Your task to perform on an android device: move an email to a new category in the gmail app Image 0: 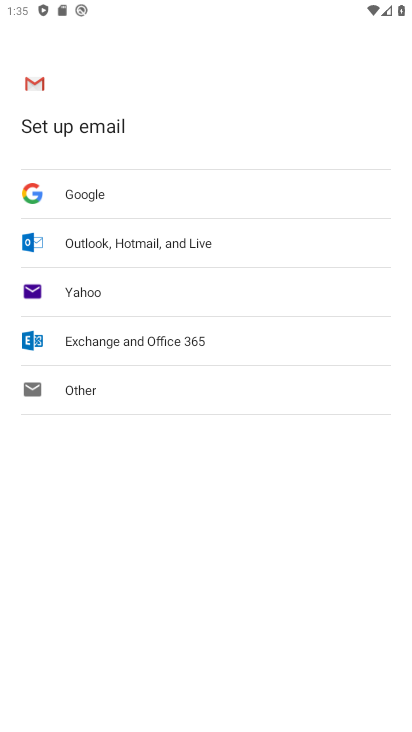
Step 0: press home button
Your task to perform on an android device: move an email to a new category in the gmail app Image 1: 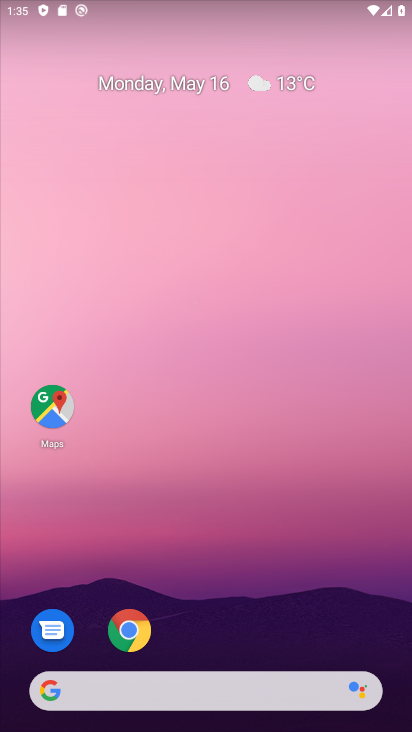
Step 1: drag from (291, 481) to (222, 1)
Your task to perform on an android device: move an email to a new category in the gmail app Image 2: 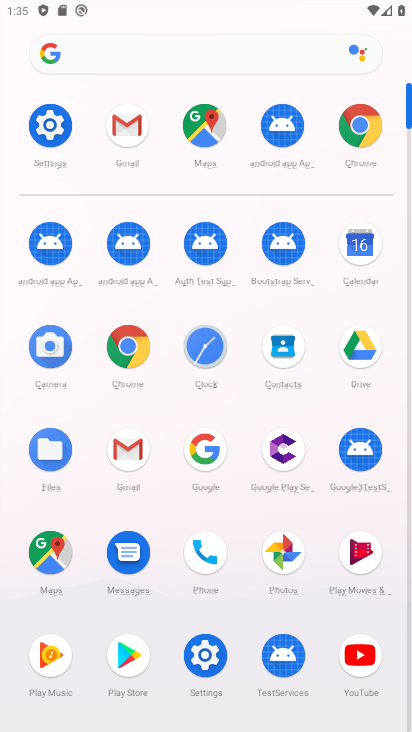
Step 2: click (142, 131)
Your task to perform on an android device: move an email to a new category in the gmail app Image 3: 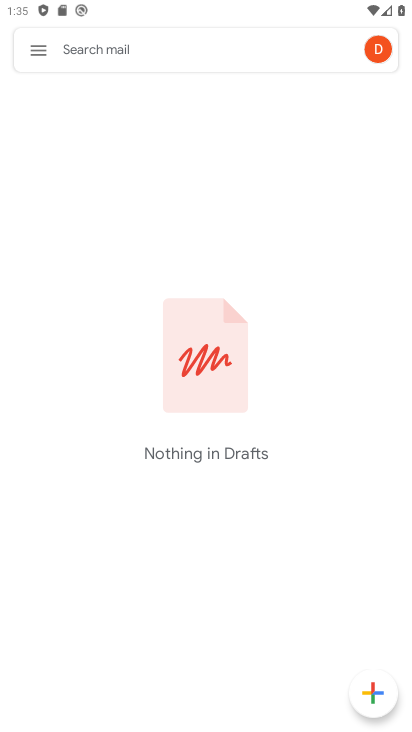
Step 3: click (36, 46)
Your task to perform on an android device: move an email to a new category in the gmail app Image 4: 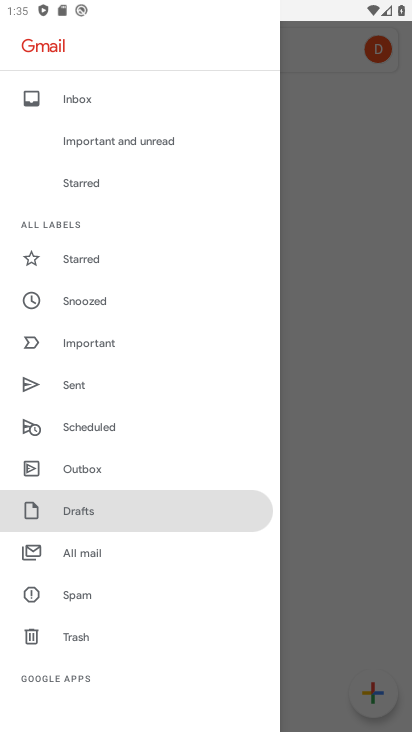
Step 4: drag from (154, 628) to (119, 121)
Your task to perform on an android device: move an email to a new category in the gmail app Image 5: 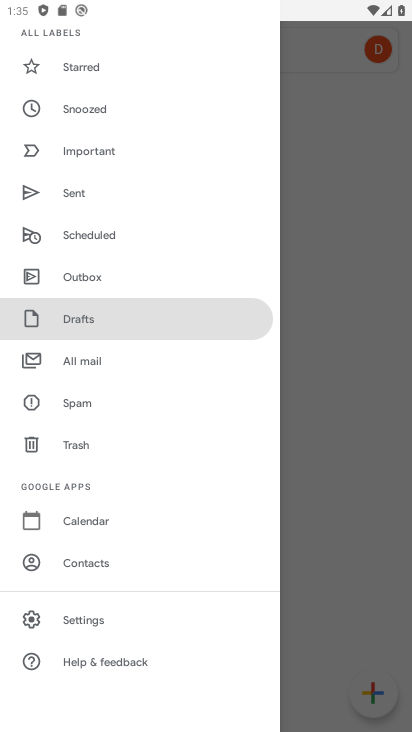
Step 5: click (121, 615)
Your task to perform on an android device: move an email to a new category in the gmail app Image 6: 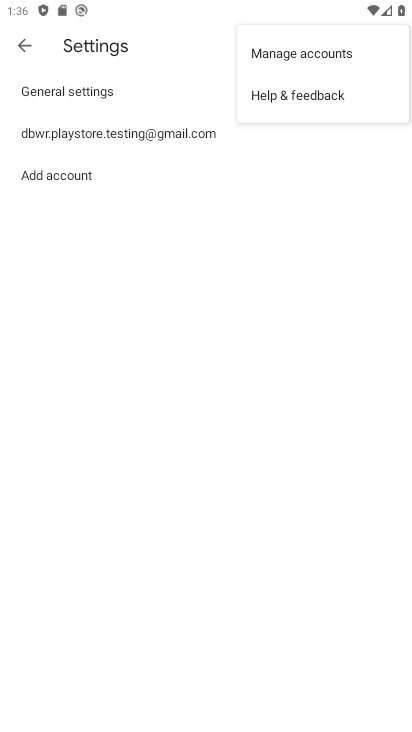
Step 6: task complete